Your task to perform on an android device: Open Google Chrome and click the shortcut for Amazon.com Image 0: 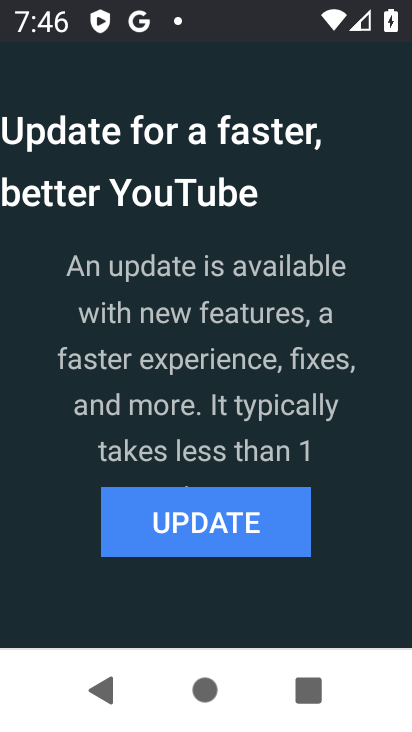
Step 0: press home button
Your task to perform on an android device: Open Google Chrome and click the shortcut for Amazon.com Image 1: 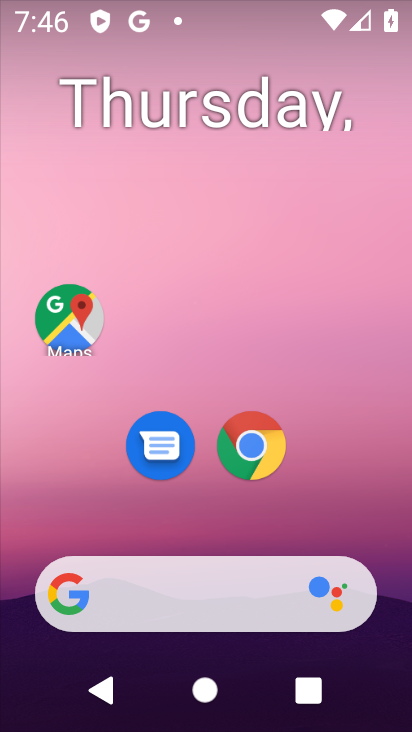
Step 1: drag from (365, 506) to (353, 85)
Your task to perform on an android device: Open Google Chrome and click the shortcut for Amazon.com Image 2: 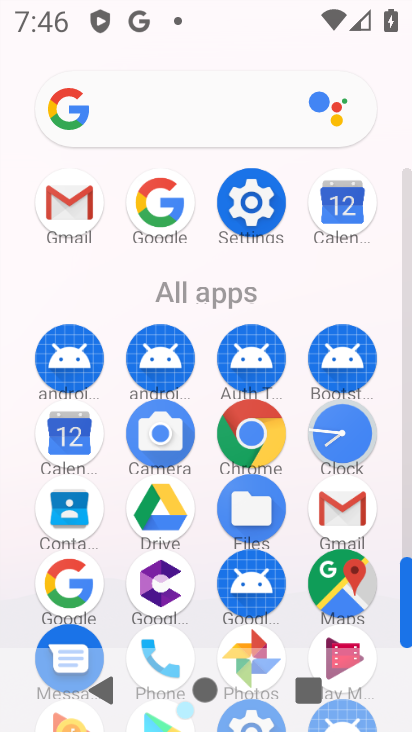
Step 2: click (263, 442)
Your task to perform on an android device: Open Google Chrome and click the shortcut for Amazon.com Image 3: 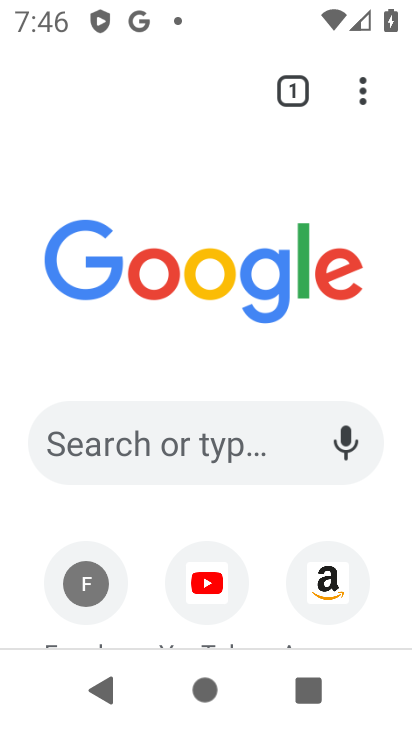
Step 3: click (339, 587)
Your task to perform on an android device: Open Google Chrome and click the shortcut for Amazon.com Image 4: 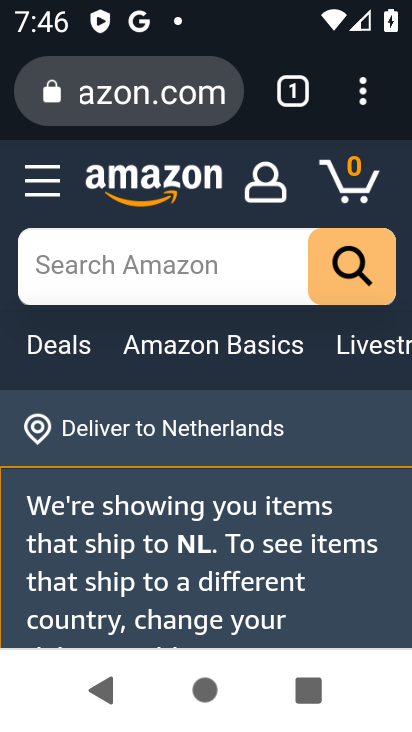
Step 4: task complete